Your task to perform on an android device: make emails show in primary in the gmail app Image 0: 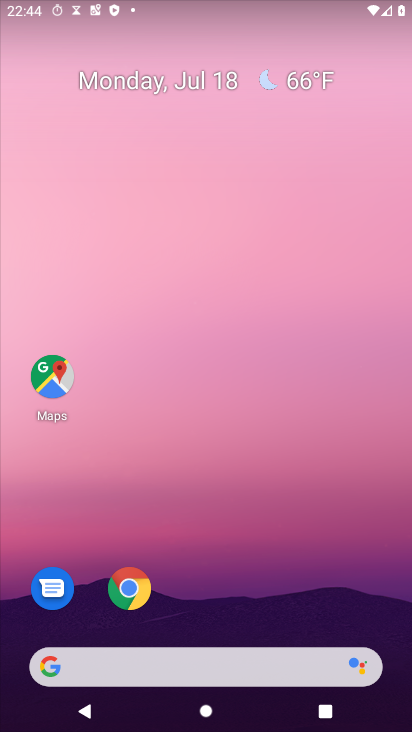
Step 0: press home button
Your task to perform on an android device: make emails show in primary in the gmail app Image 1: 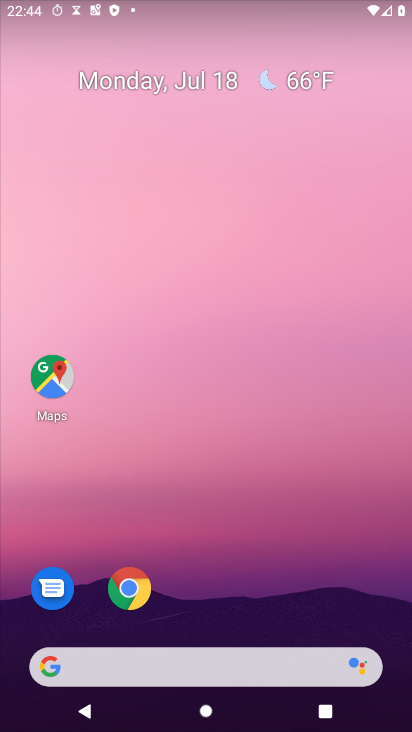
Step 1: drag from (174, 663) to (278, 144)
Your task to perform on an android device: make emails show in primary in the gmail app Image 2: 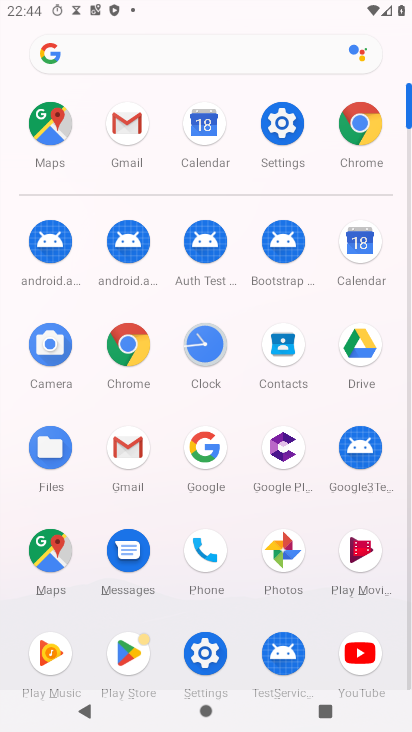
Step 2: click (127, 135)
Your task to perform on an android device: make emails show in primary in the gmail app Image 3: 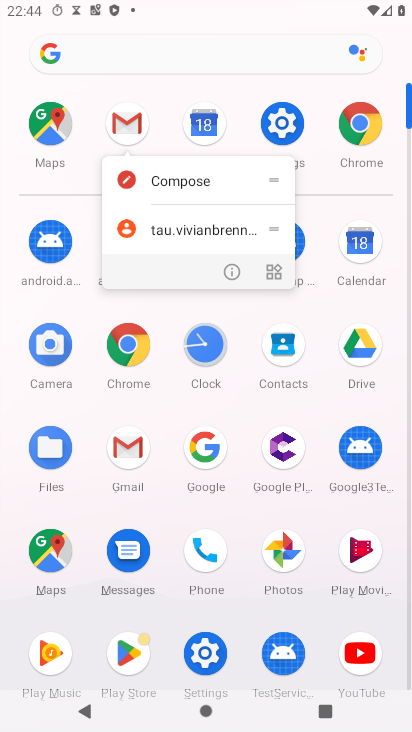
Step 3: click (127, 120)
Your task to perform on an android device: make emails show in primary in the gmail app Image 4: 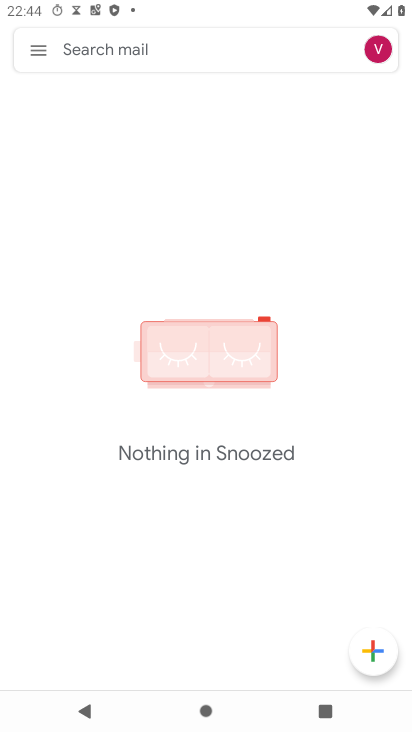
Step 4: click (38, 46)
Your task to perform on an android device: make emails show in primary in the gmail app Image 5: 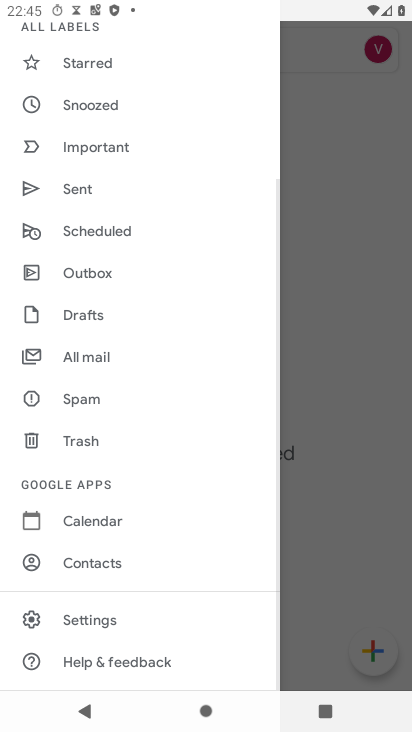
Step 5: click (85, 621)
Your task to perform on an android device: make emails show in primary in the gmail app Image 6: 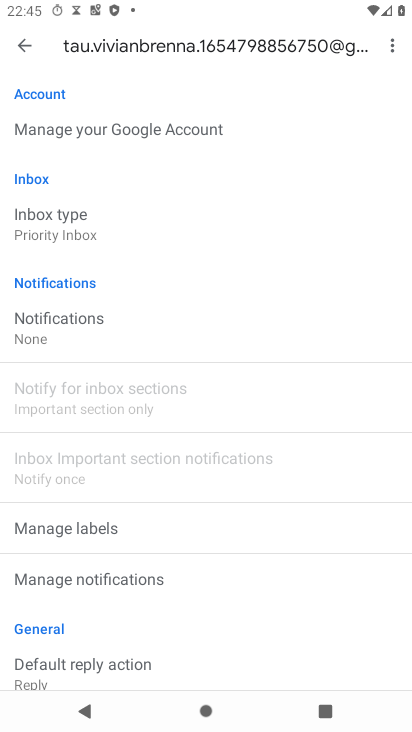
Step 6: task complete